Your task to perform on an android device: turn pop-ups on in chrome Image 0: 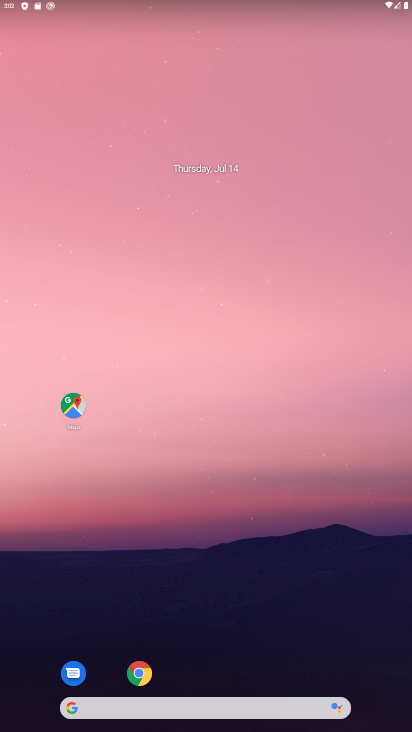
Step 0: press home button
Your task to perform on an android device: turn pop-ups on in chrome Image 1: 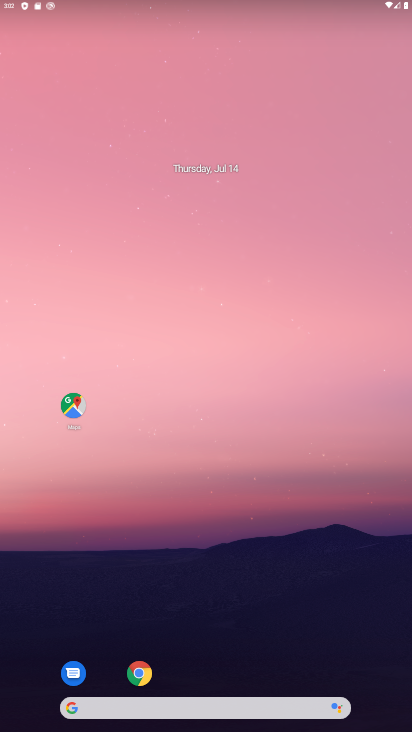
Step 1: click (141, 673)
Your task to perform on an android device: turn pop-ups on in chrome Image 2: 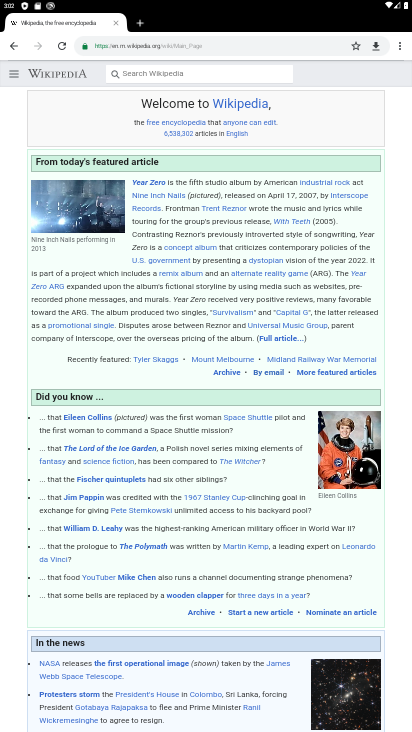
Step 2: click (396, 46)
Your task to perform on an android device: turn pop-ups on in chrome Image 3: 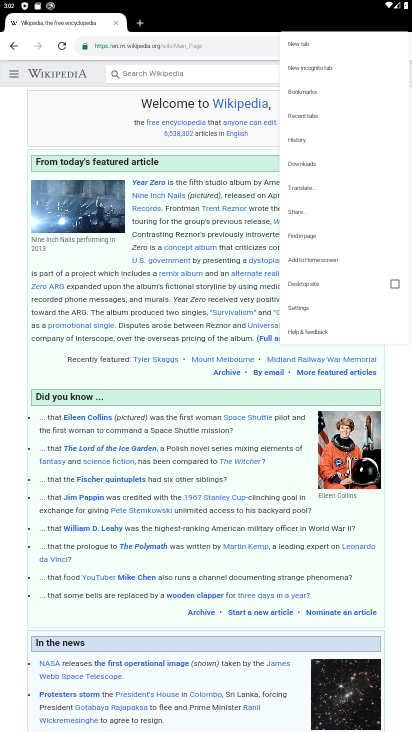
Step 3: click (304, 305)
Your task to perform on an android device: turn pop-ups on in chrome Image 4: 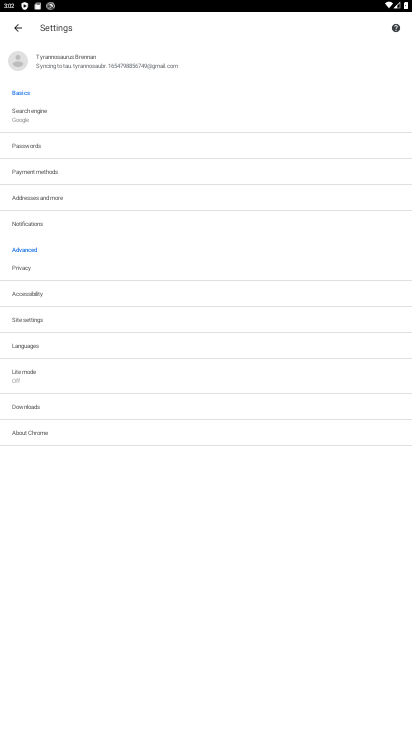
Step 4: click (43, 321)
Your task to perform on an android device: turn pop-ups on in chrome Image 5: 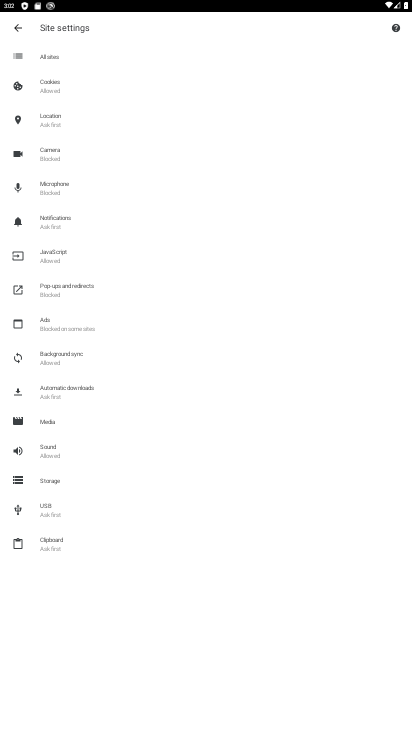
Step 5: click (71, 290)
Your task to perform on an android device: turn pop-ups on in chrome Image 6: 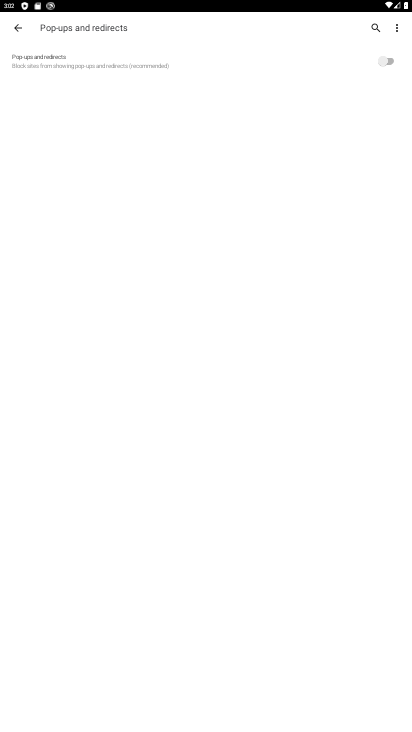
Step 6: click (391, 54)
Your task to perform on an android device: turn pop-ups on in chrome Image 7: 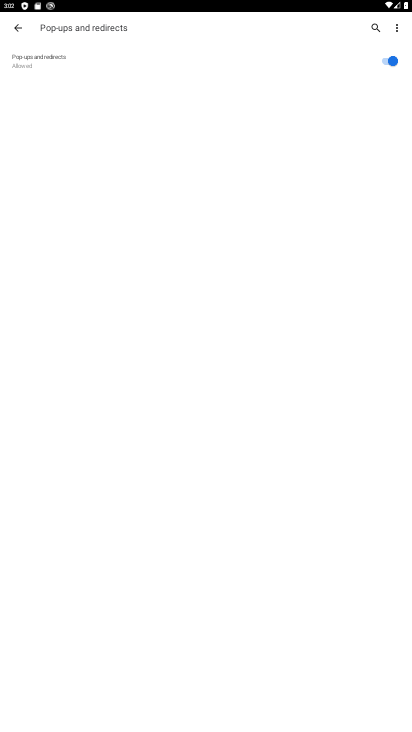
Step 7: task complete